Your task to perform on an android device: Go to ESPN.com Image 0: 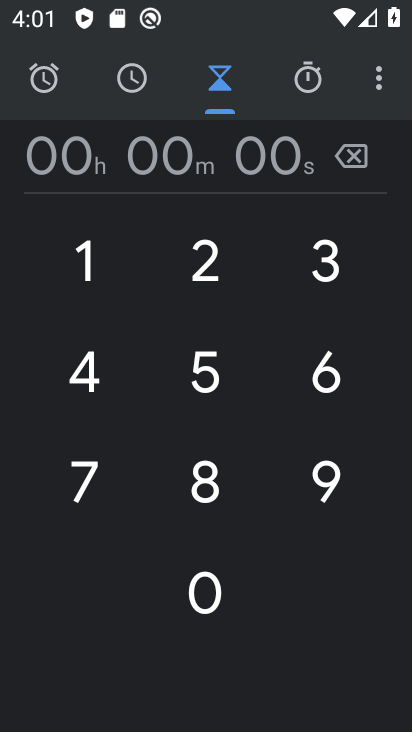
Step 0: press back button
Your task to perform on an android device: Go to ESPN.com Image 1: 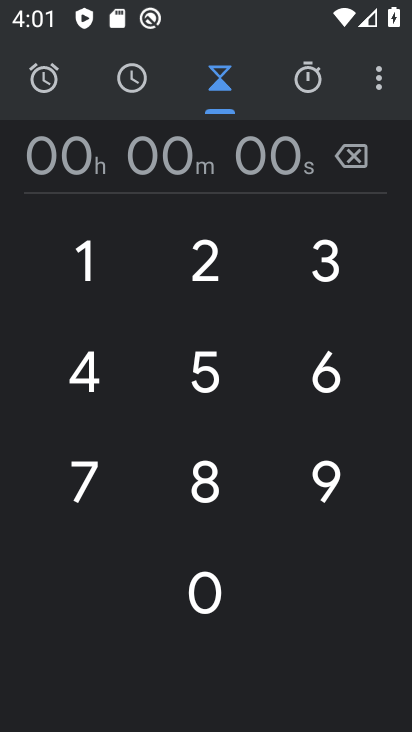
Step 1: press back button
Your task to perform on an android device: Go to ESPN.com Image 2: 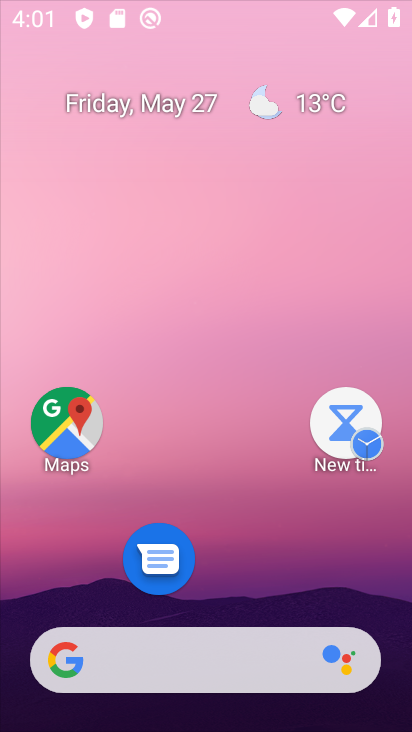
Step 2: press back button
Your task to perform on an android device: Go to ESPN.com Image 3: 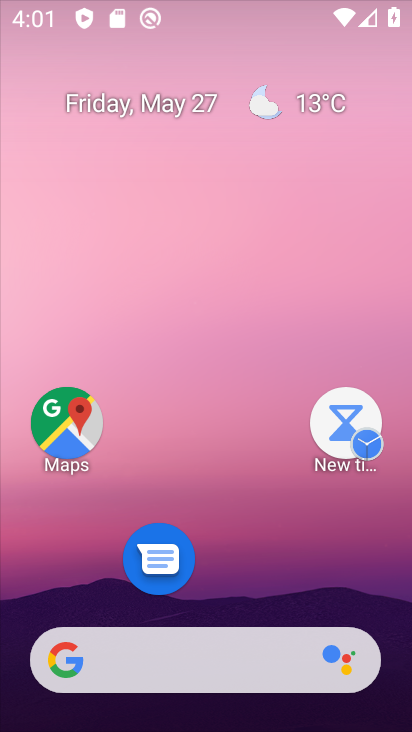
Step 3: press back button
Your task to perform on an android device: Go to ESPN.com Image 4: 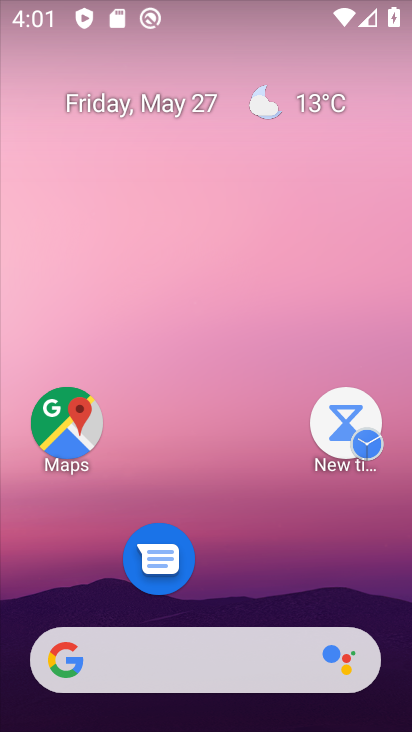
Step 4: drag from (177, 313) to (117, 93)
Your task to perform on an android device: Go to ESPN.com Image 5: 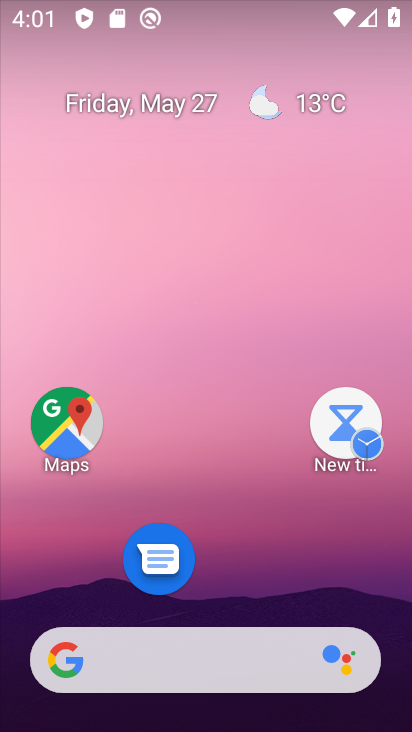
Step 5: click (147, 90)
Your task to perform on an android device: Go to ESPN.com Image 6: 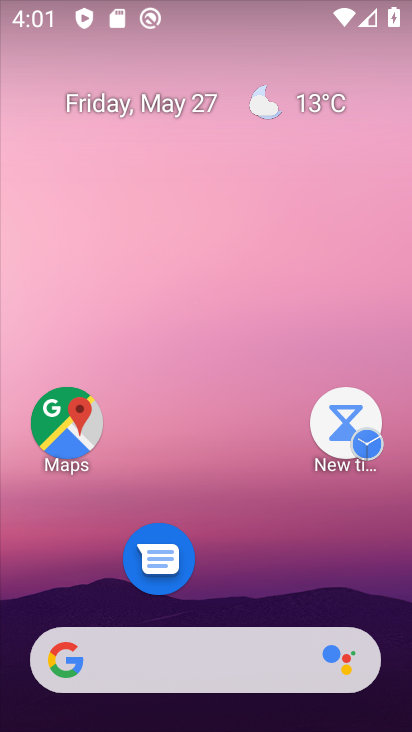
Step 6: drag from (202, 425) to (123, 126)
Your task to perform on an android device: Go to ESPN.com Image 7: 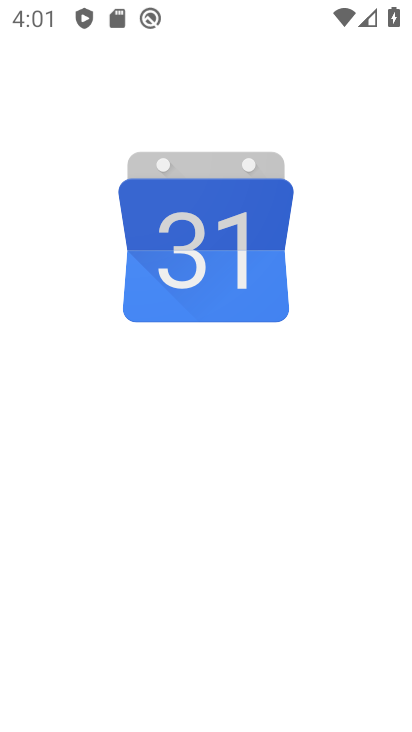
Step 7: drag from (242, 537) to (45, 18)
Your task to perform on an android device: Go to ESPN.com Image 8: 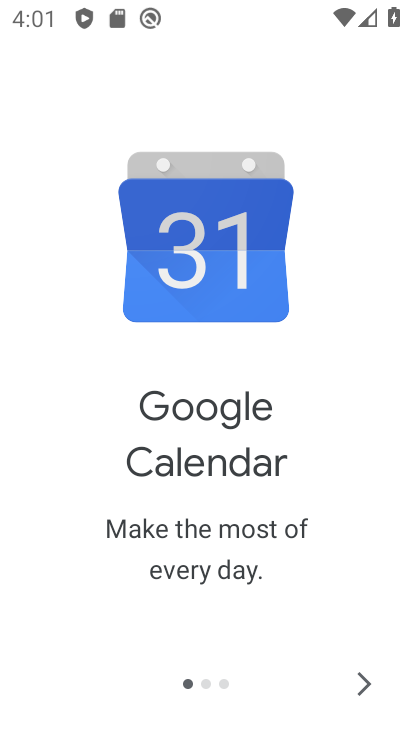
Step 8: click (361, 678)
Your task to perform on an android device: Go to ESPN.com Image 9: 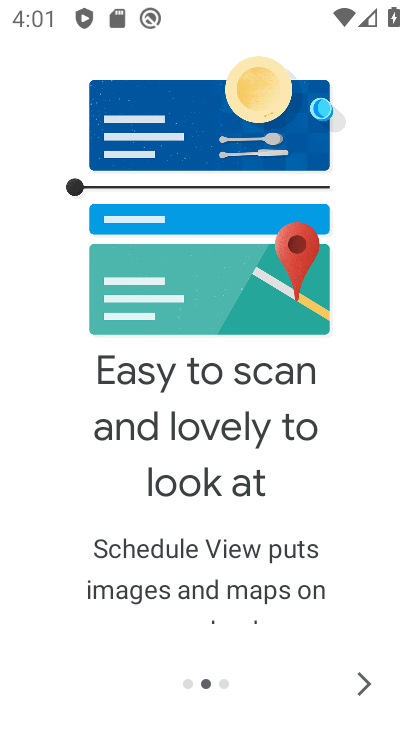
Step 9: click (361, 678)
Your task to perform on an android device: Go to ESPN.com Image 10: 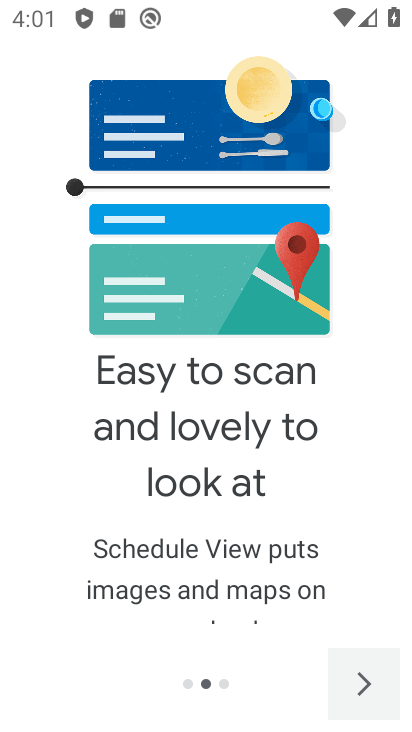
Step 10: click (362, 678)
Your task to perform on an android device: Go to ESPN.com Image 11: 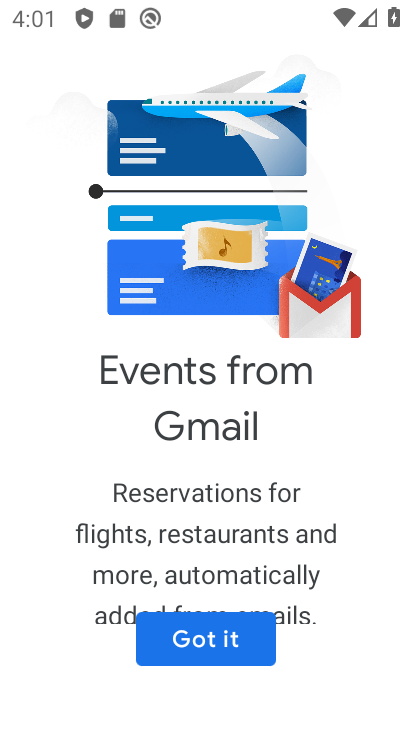
Step 11: click (363, 679)
Your task to perform on an android device: Go to ESPN.com Image 12: 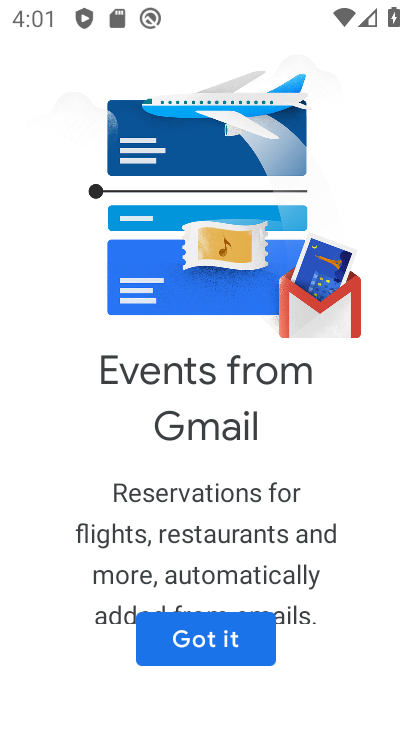
Step 12: click (363, 682)
Your task to perform on an android device: Go to ESPN.com Image 13: 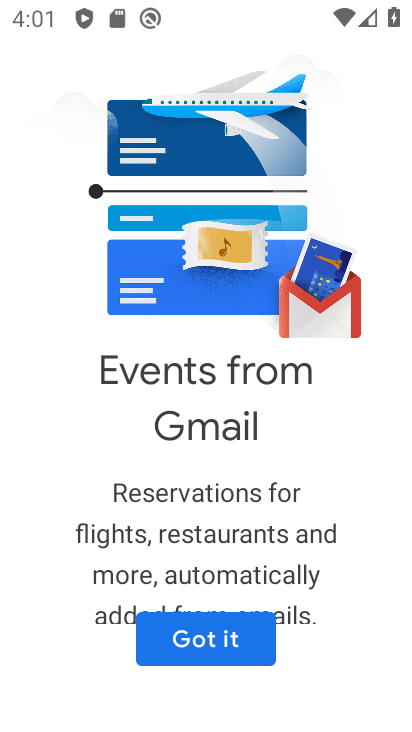
Step 13: click (211, 650)
Your task to perform on an android device: Go to ESPN.com Image 14: 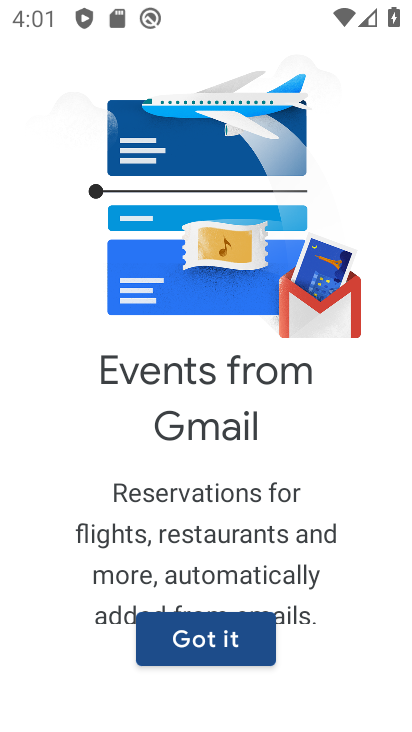
Step 14: click (211, 650)
Your task to perform on an android device: Go to ESPN.com Image 15: 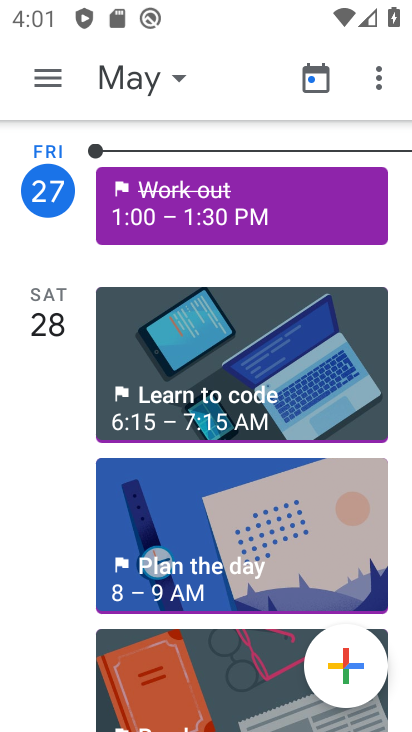
Step 15: drag from (153, 1) to (147, 45)
Your task to perform on an android device: Go to ESPN.com Image 16: 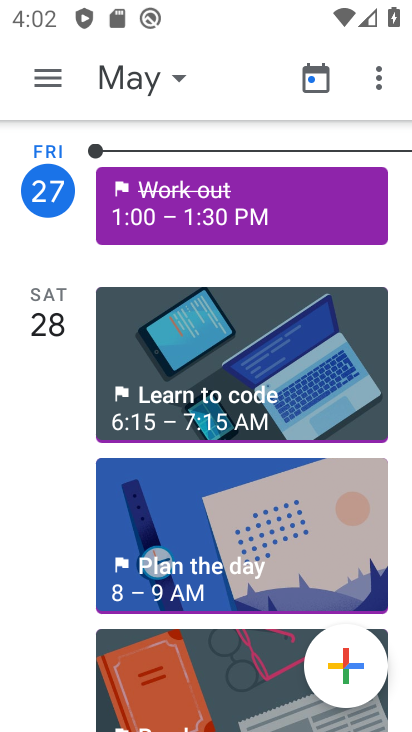
Step 16: press back button
Your task to perform on an android device: Go to ESPN.com Image 17: 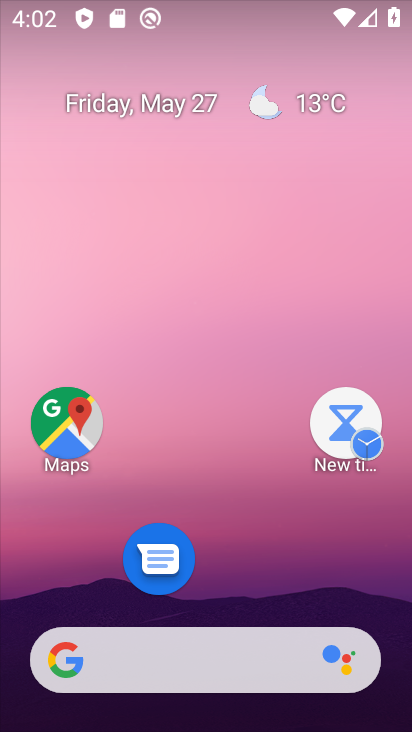
Step 17: drag from (224, 582) to (130, 82)
Your task to perform on an android device: Go to ESPN.com Image 18: 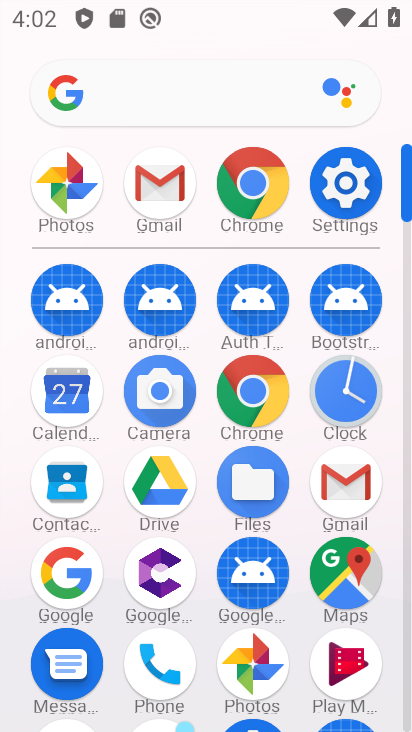
Step 18: click (247, 175)
Your task to perform on an android device: Go to ESPN.com Image 19: 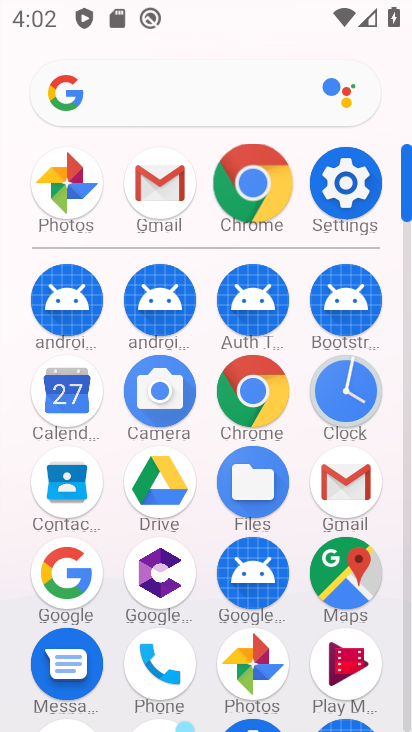
Step 19: click (249, 177)
Your task to perform on an android device: Go to ESPN.com Image 20: 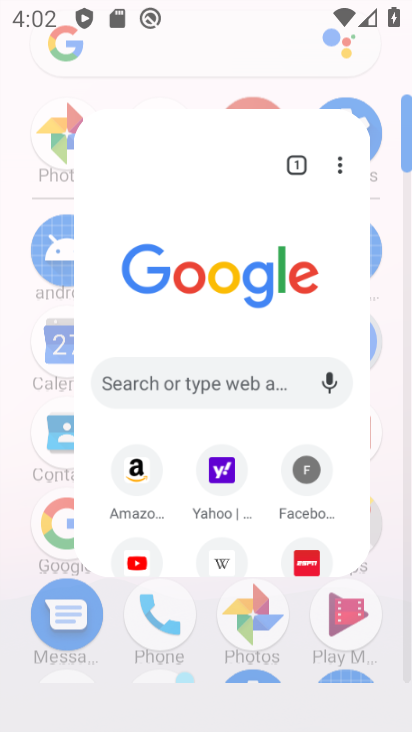
Step 20: click (252, 178)
Your task to perform on an android device: Go to ESPN.com Image 21: 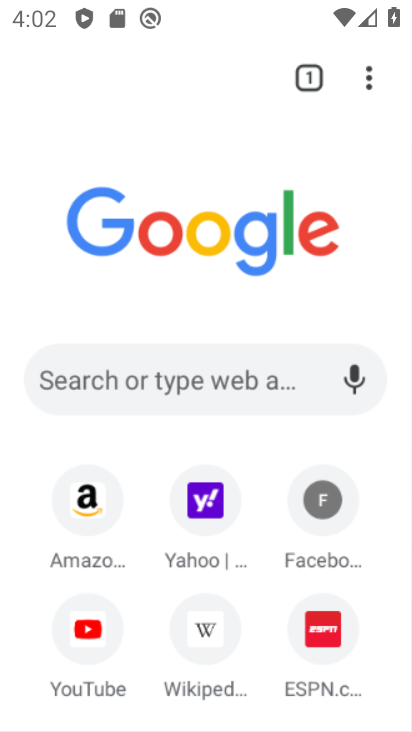
Step 21: click (260, 172)
Your task to perform on an android device: Go to ESPN.com Image 22: 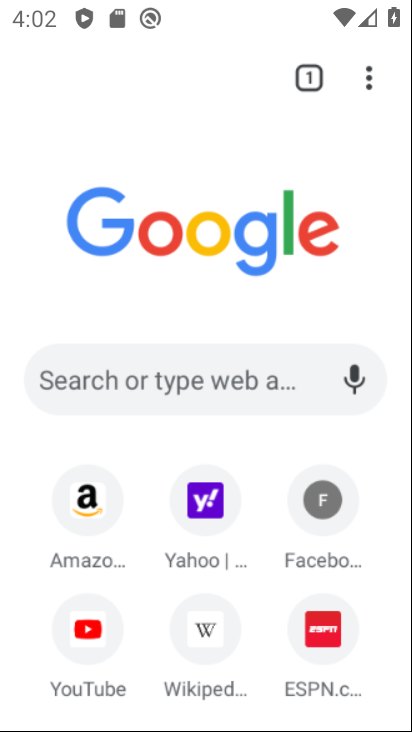
Step 22: click (260, 172)
Your task to perform on an android device: Go to ESPN.com Image 23: 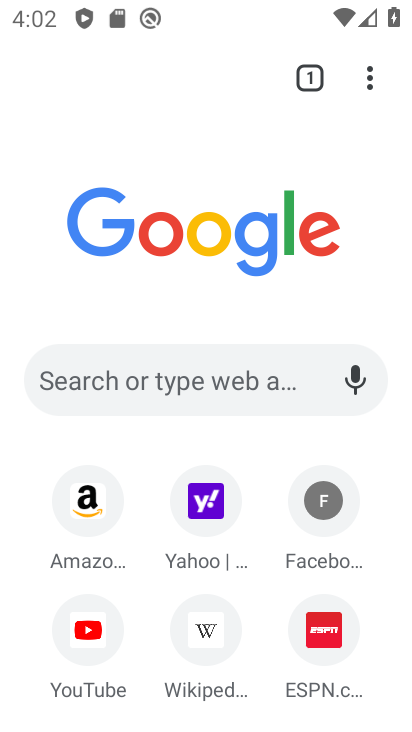
Step 23: click (260, 172)
Your task to perform on an android device: Go to ESPN.com Image 24: 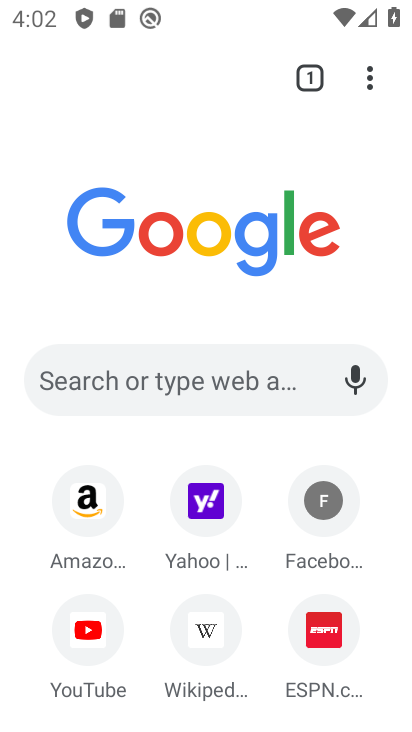
Step 24: click (260, 172)
Your task to perform on an android device: Go to ESPN.com Image 25: 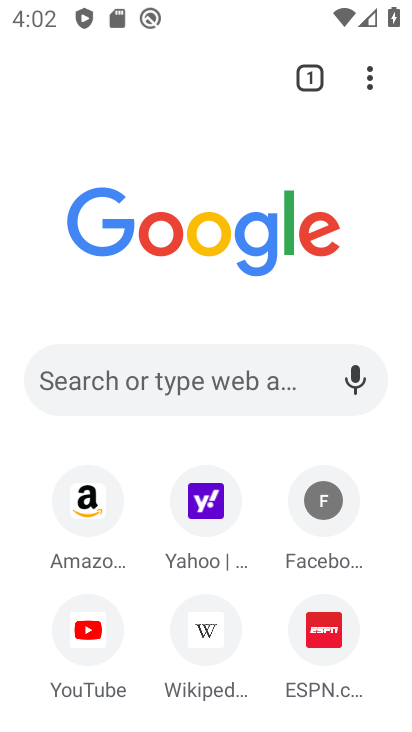
Step 25: click (315, 630)
Your task to perform on an android device: Go to ESPN.com Image 26: 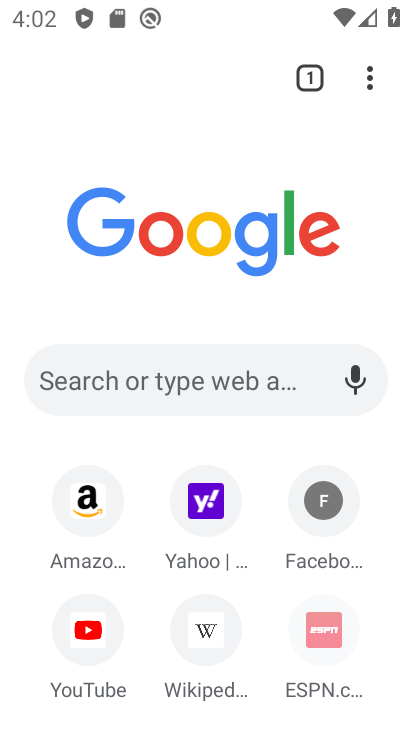
Step 26: click (316, 628)
Your task to perform on an android device: Go to ESPN.com Image 27: 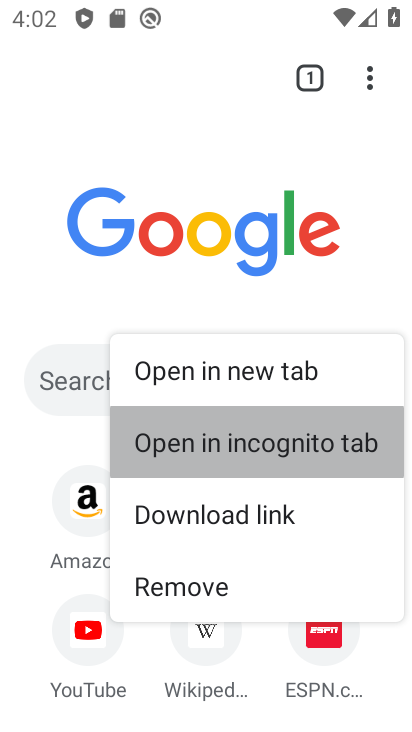
Step 27: click (312, 624)
Your task to perform on an android device: Go to ESPN.com Image 28: 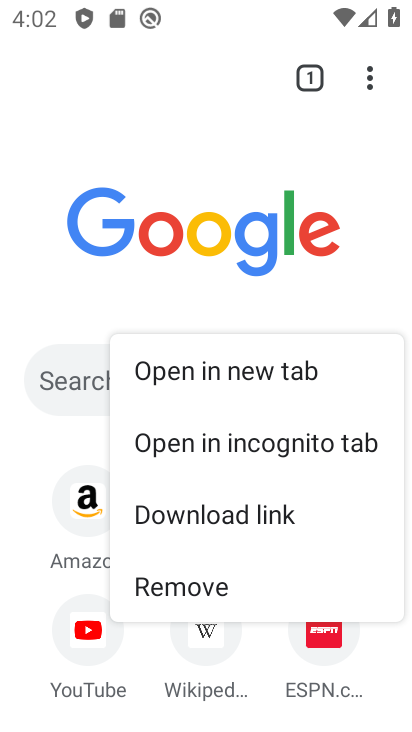
Step 28: click (318, 630)
Your task to perform on an android device: Go to ESPN.com Image 29: 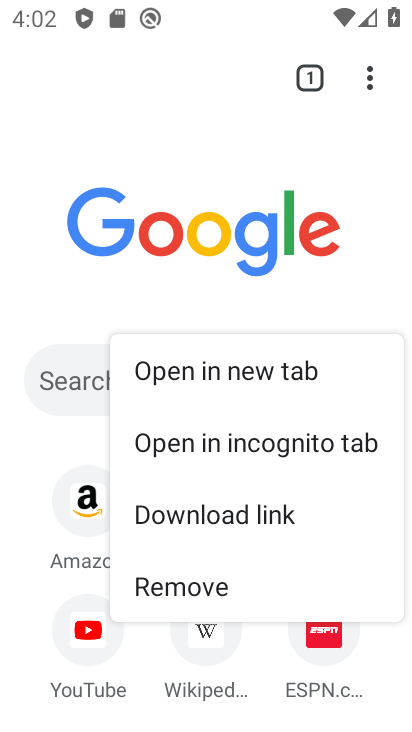
Step 29: click (226, 378)
Your task to perform on an android device: Go to ESPN.com Image 30: 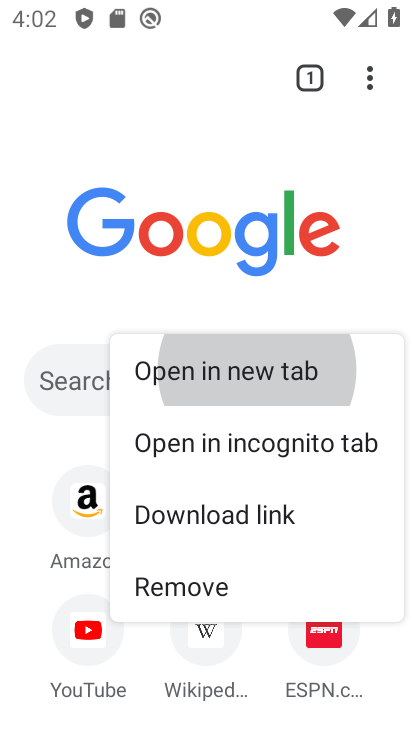
Step 30: click (226, 377)
Your task to perform on an android device: Go to ESPN.com Image 31: 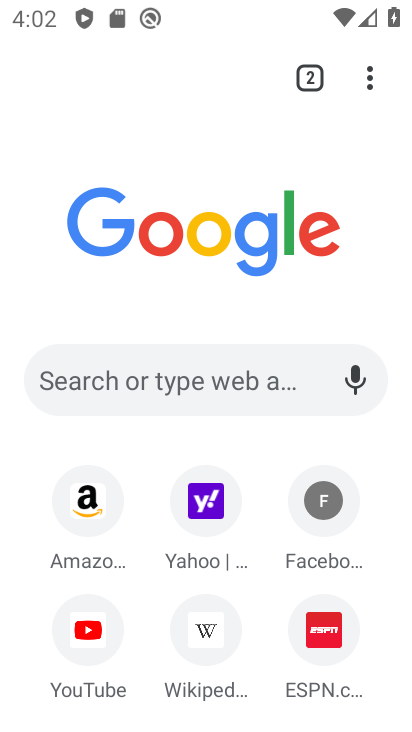
Step 31: click (323, 631)
Your task to perform on an android device: Go to ESPN.com Image 32: 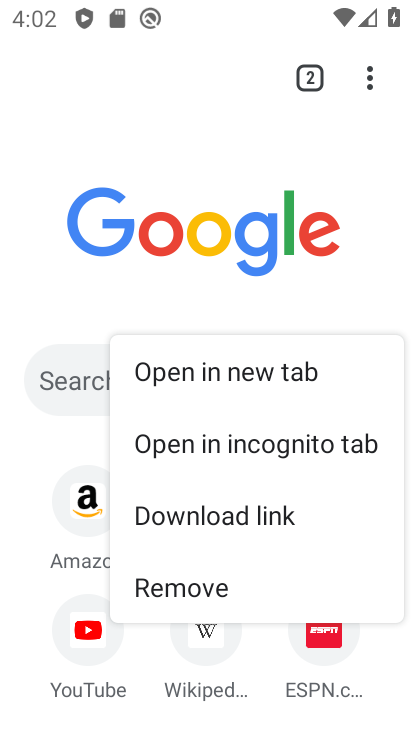
Step 32: drag from (324, 636) to (325, 593)
Your task to perform on an android device: Go to ESPN.com Image 33: 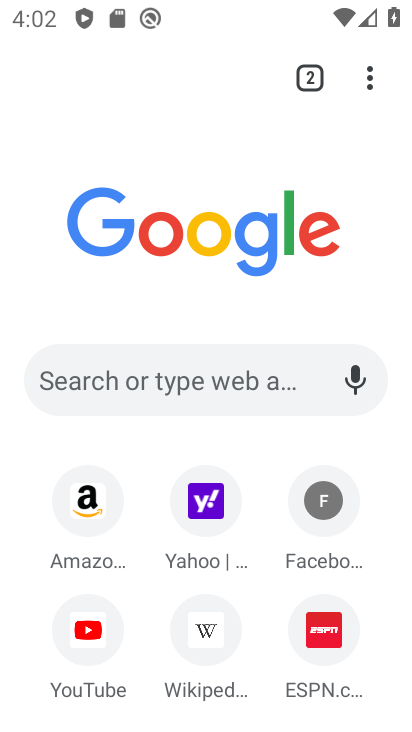
Step 33: click (322, 643)
Your task to perform on an android device: Go to ESPN.com Image 34: 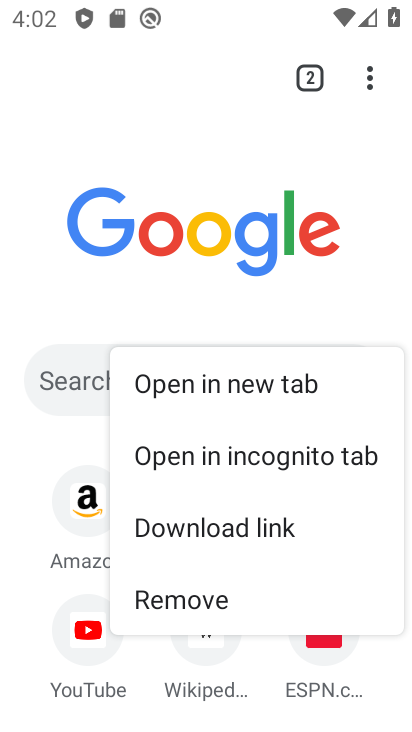
Step 34: click (325, 639)
Your task to perform on an android device: Go to ESPN.com Image 35: 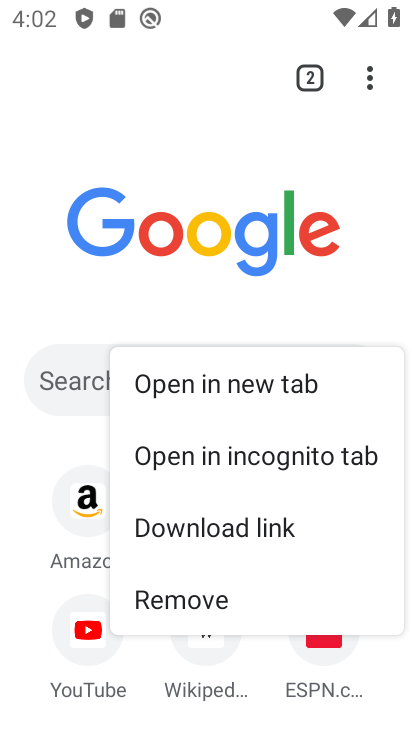
Step 35: click (325, 639)
Your task to perform on an android device: Go to ESPN.com Image 36: 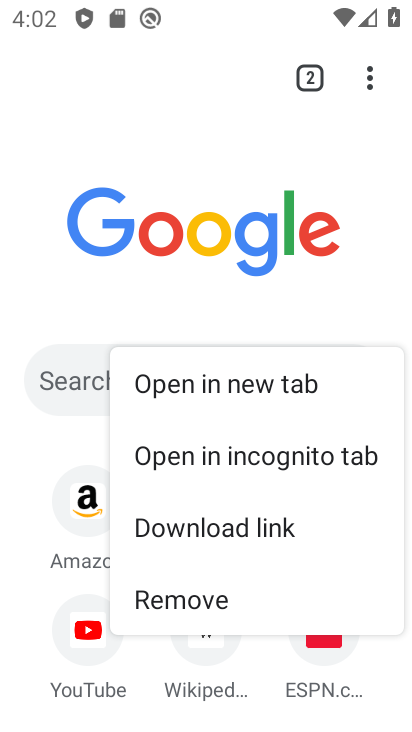
Step 36: click (260, 383)
Your task to perform on an android device: Go to ESPN.com Image 37: 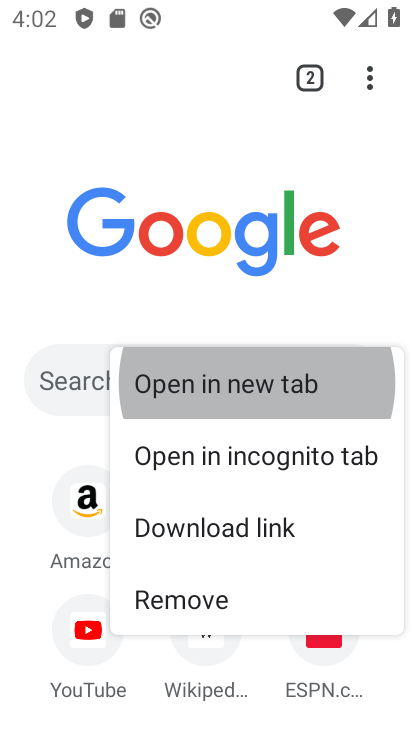
Step 37: click (261, 382)
Your task to perform on an android device: Go to ESPN.com Image 38: 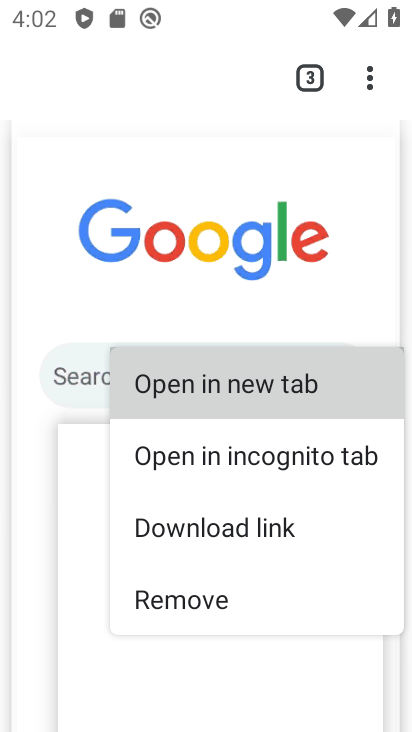
Step 38: click (263, 383)
Your task to perform on an android device: Go to ESPN.com Image 39: 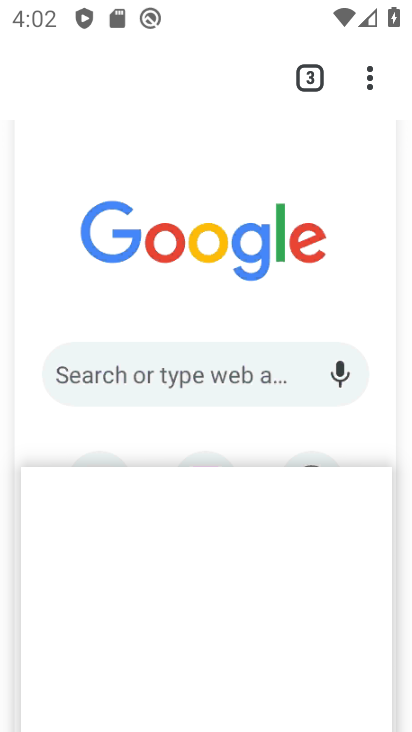
Step 39: click (263, 383)
Your task to perform on an android device: Go to ESPN.com Image 40: 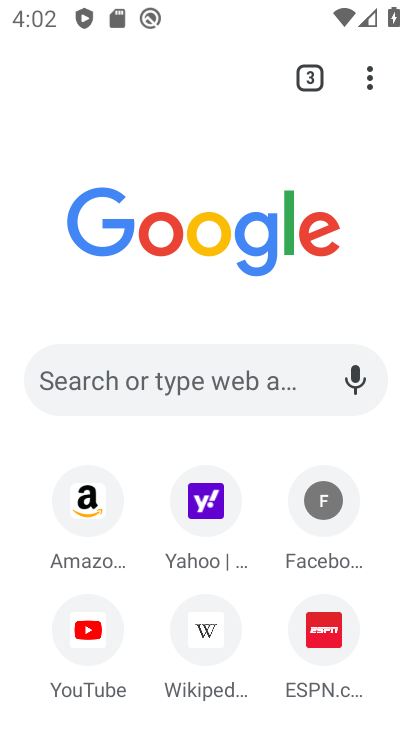
Step 40: click (104, 366)
Your task to perform on an android device: Go to ESPN.com Image 41: 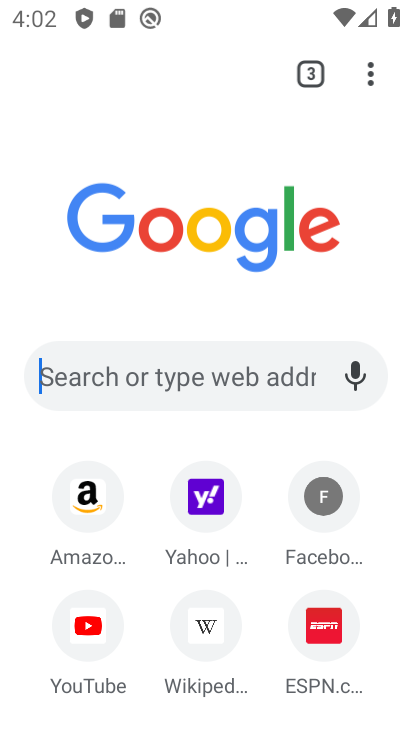
Step 41: click (104, 366)
Your task to perform on an android device: Go to ESPN.com Image 42: 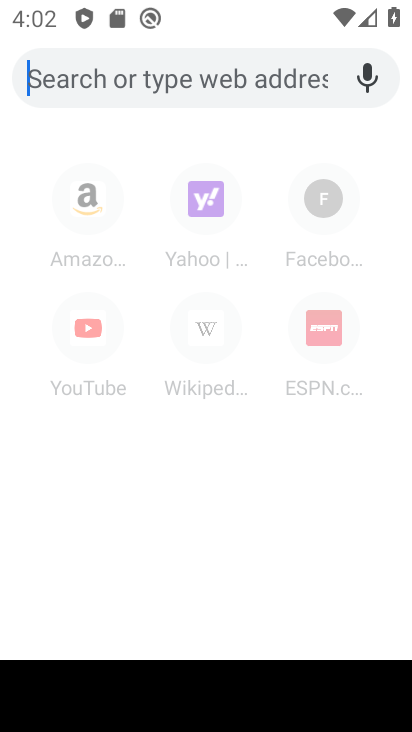
Step 42: click (105, 367)
Your task to perform on an android device: Go to ESPN.com Image 43: 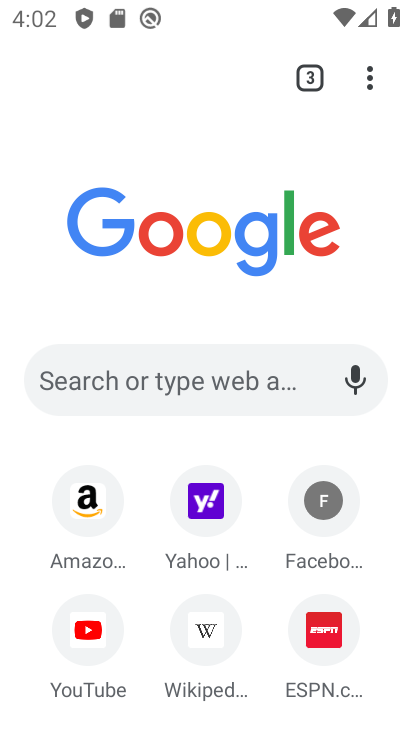
Step 43: click (59, 380)
Your task to perform on an android device: Go to ESPN.com Image 44: 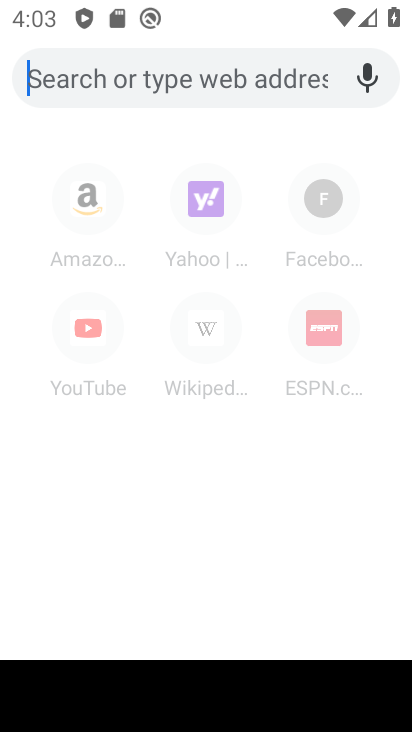
Step 44: click (326, 314)
Your task to perform on an android device: Go to ESPN.com Image 45: 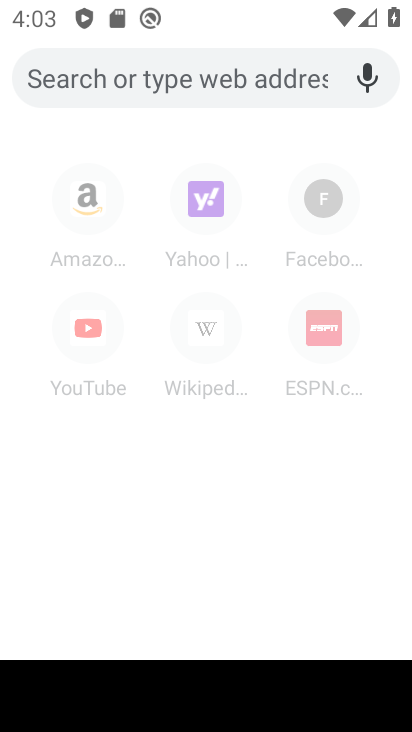
Step 45: click (323, 321)
Your task to perform on an android device: Go to ESPN.com Image 46: 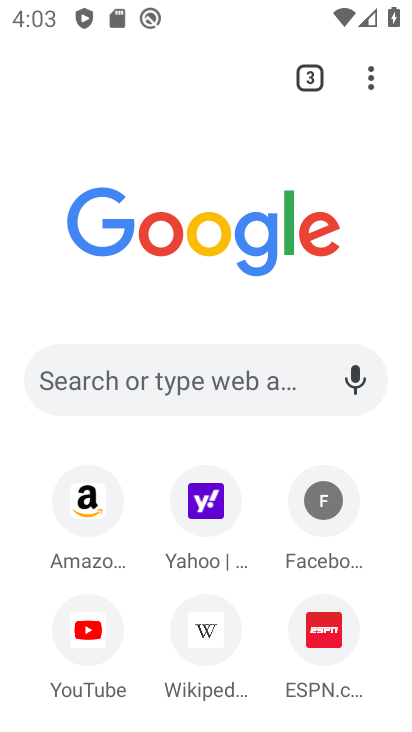
Step 46: click (323, 321)
Your task to perform on an android device: Go to ESPN.com Image 47: 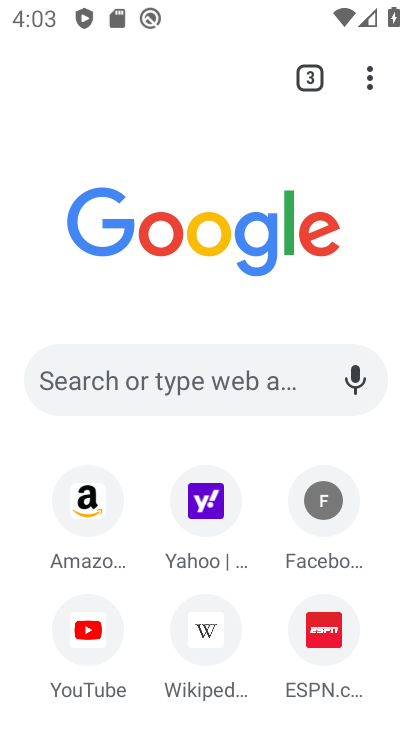
Step 47: click (323, 322)
Your task to perform on an android device: Go to ESPN.com Image 48: 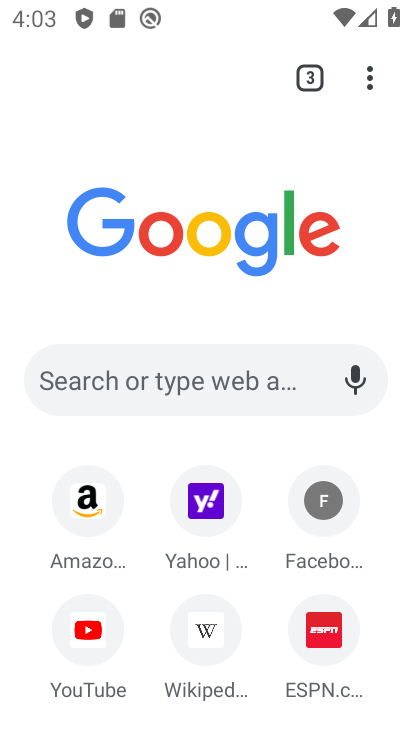
Step 48: click (331, 631)
Your task to perform on an android device: Go to ESPN.com Image 49: 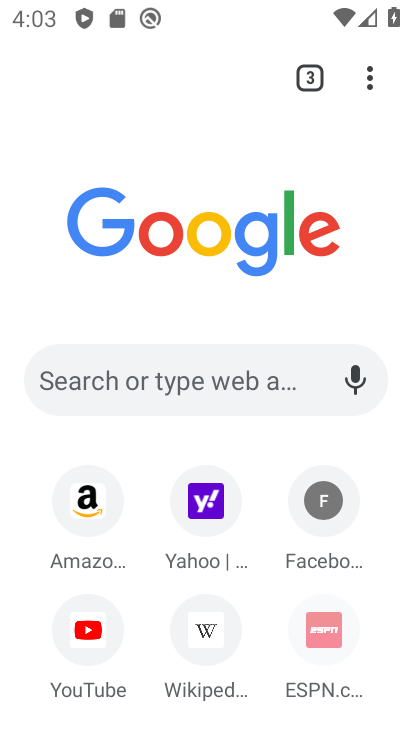
Step 49: click (331, 631)
Your task to perform on an android device: Go to ESPN.com Image 50: 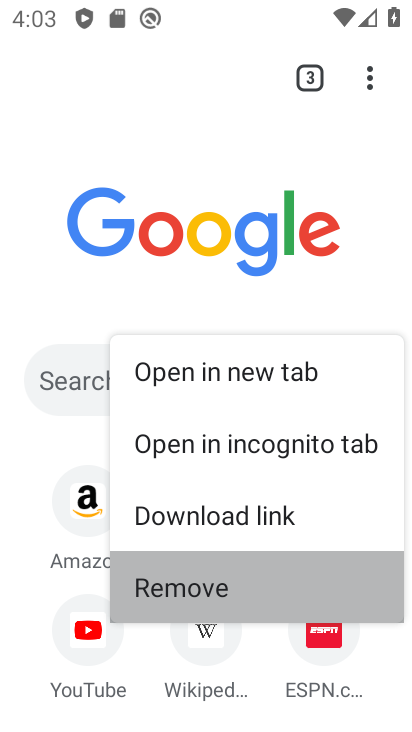
Step 50: click (332, 631)
Your task to perform on an android device: Go to ESPN.com Image 51: 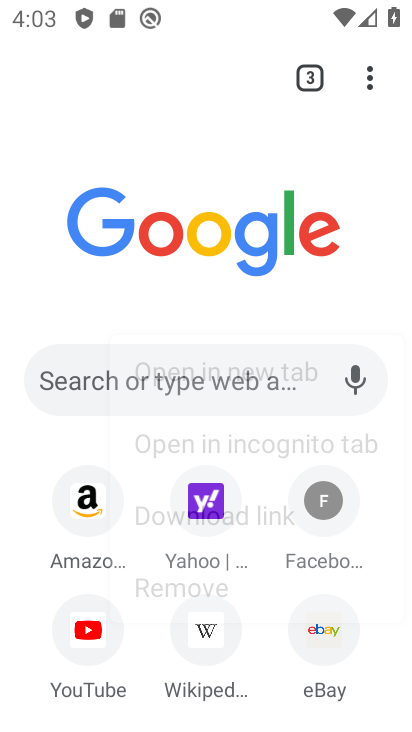
Step 51: click (332, 631)
Your task to perform on an android device: Go to ESPN.com Image 52: 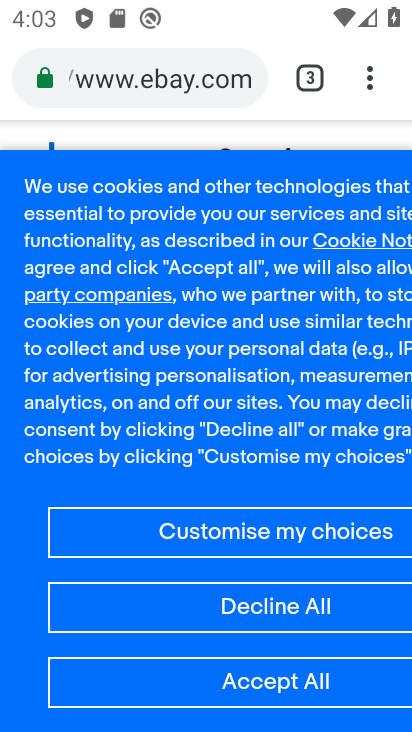
Step 52: task complete